Your task to perform on an android device: stop showing notifications on the lock screen Image 0: 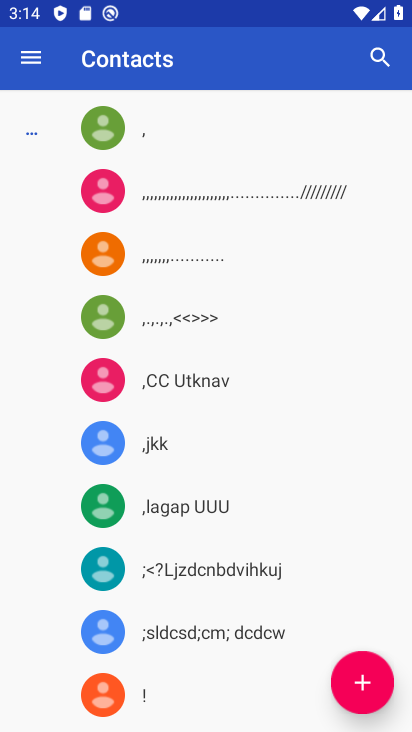
Step 0: press home button
Your task to perform on an android device: stop showing notifications on the lock screen Image 1: 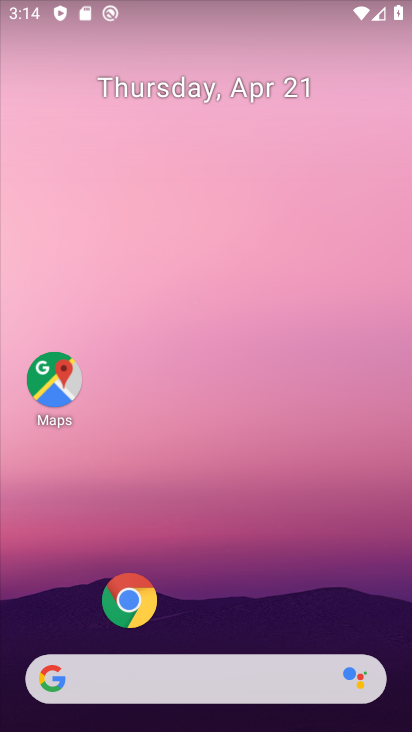
Step 1: drag from (35, 585) to (287, 199)
Your task to perform on an android device: stop showing notifications on the lock screen Image 2: 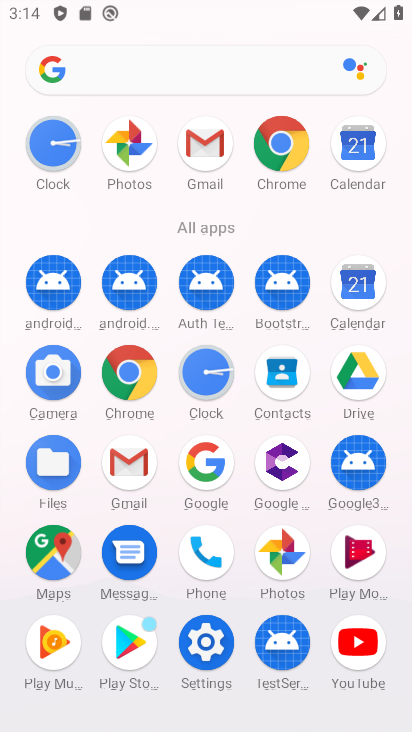
Step 2: click (200, 643)
Your task to perform on an android device: stop showing notifications on the lock screen Image 3: 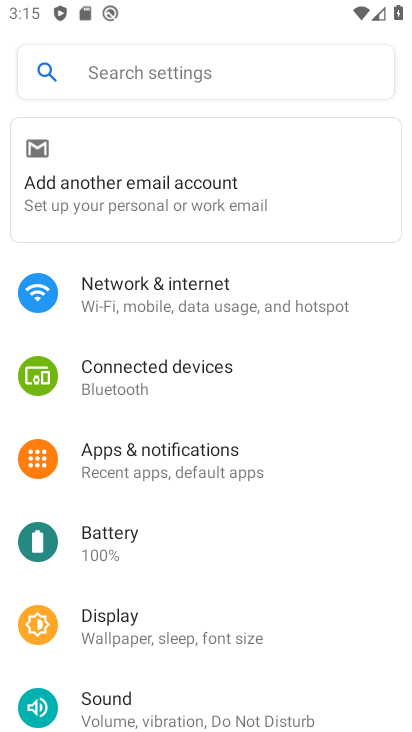
Step 3: click (192, 455)
Your task to perform on an android device: stop showing notifications on the lock screen Image 4: 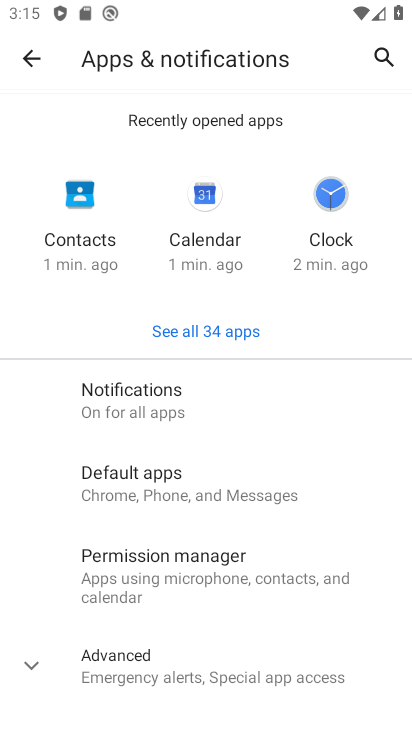
Step 4: click (177, 400)
Your task to perform on an android device: stop showing notifications on the lock screen Image 5: 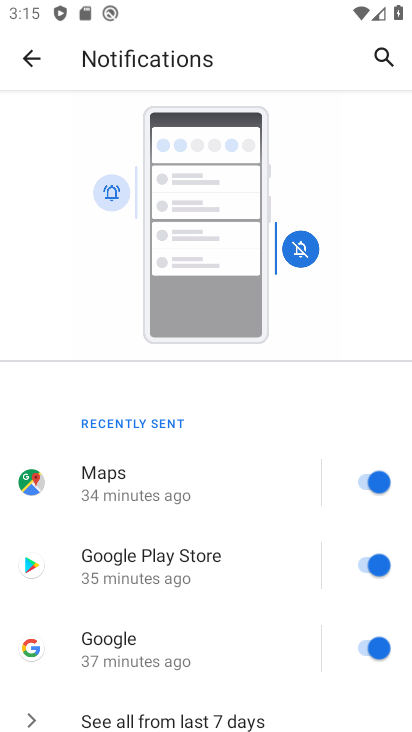
Step 5: drag from (117, 678) to (263, 339)
Your task to perform on an android device: stop showing notifications on the lock screen Image 6: 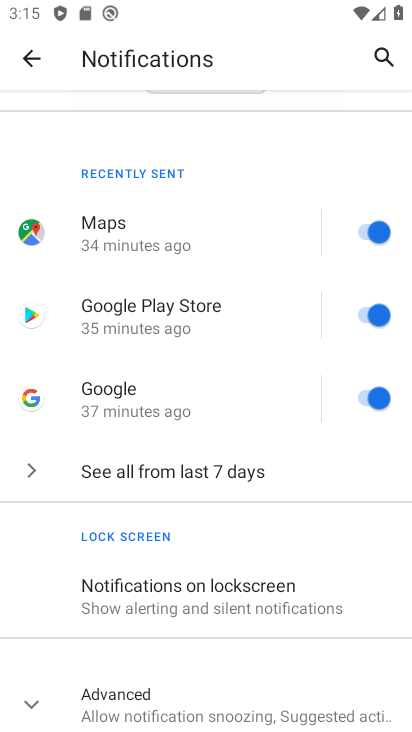
Step 6: click (197, 588)
Your task to perform on an android device: stop showing notifications on the lock screen Image 7: 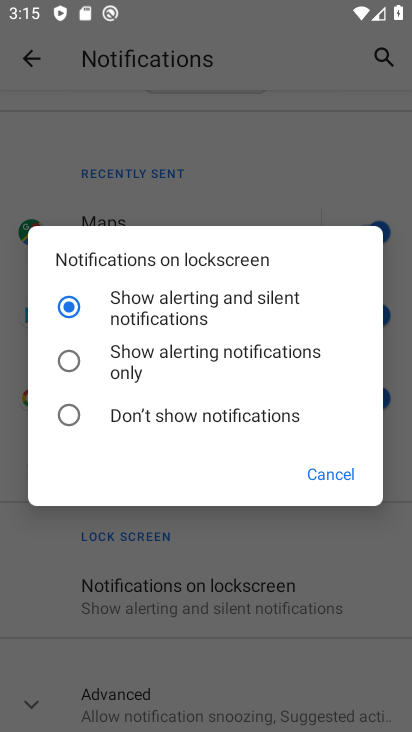
Step 7: click (71, 413)
Your task to perform on an android device: stop showing notifications on the lock screen Image 8: 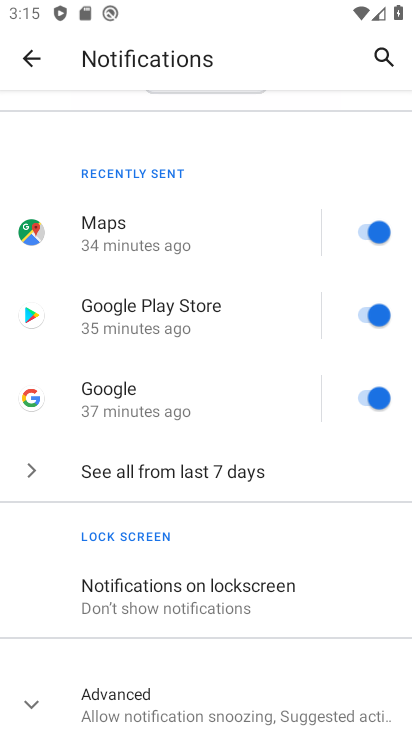
Step 8: task complete